Your task to perform on an android device: Open Maps and search for coffee Image 0: 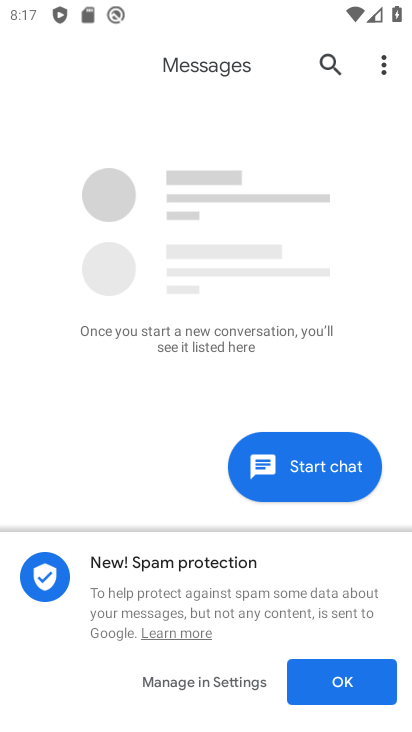
Step 0: press home button
Your task to perform on an android device: Open Maps and search for coffee Image 1: 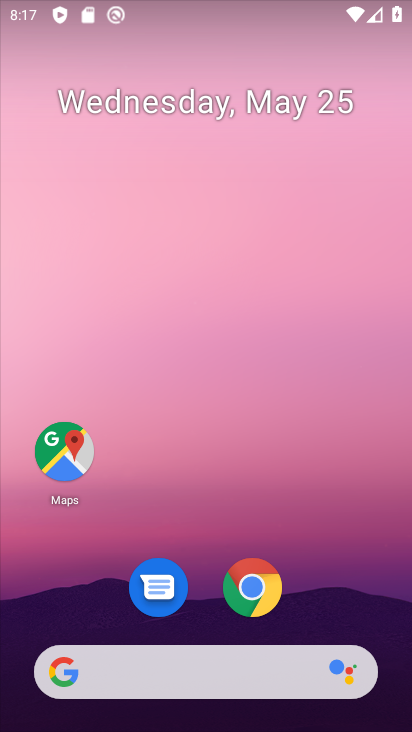
Step 1: click (47, 454)
Your task to perform on an android device: Open Maps and search for coffee Image 2: 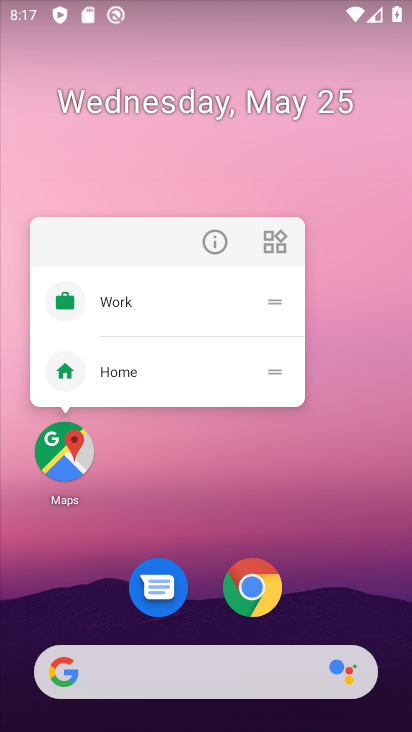
Step 2: click (334, 532)
Your task to perform on an android device: Open Maps and search for coffee Image 3: 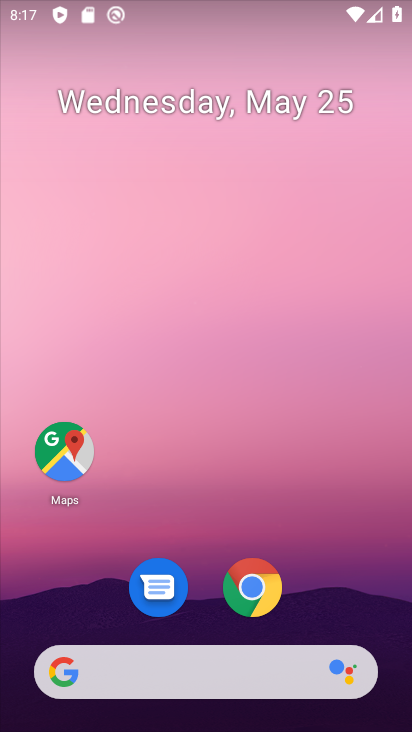
Step 3: drag from (330, 586) to (359, 91)
Your task to perform on an android device: Open Maps and search for coffee Image 4: 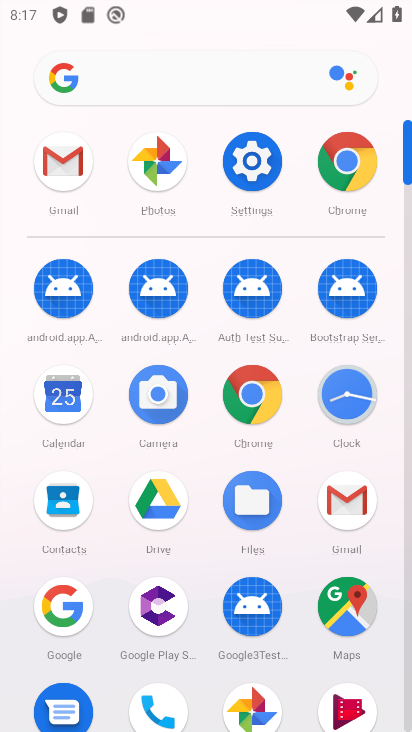
Step 4: click (334, 617)
Your task to perform on an android device: Open Maps and search for coffee Image 5: 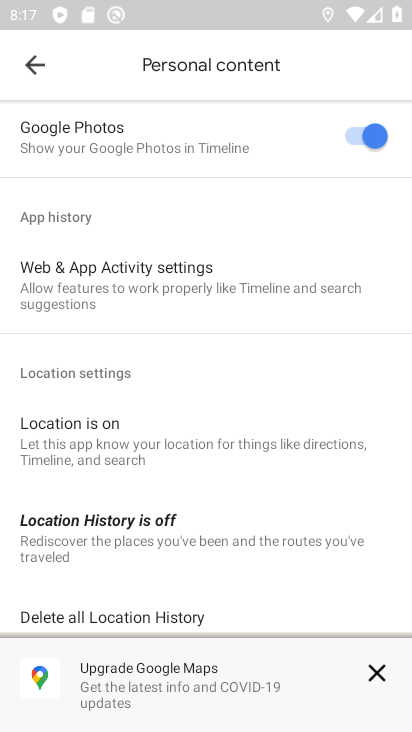
Step 5: click (32, 67)
Your task to perform on an android device: Open Maps and search for coffee Image 6: 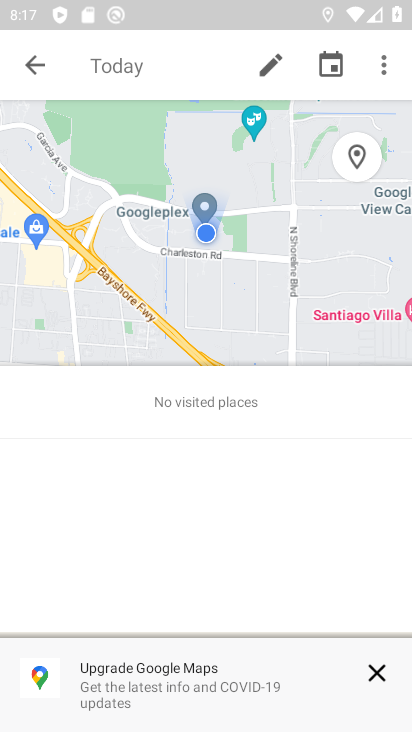
Step 6: click (37, 54)
Your task to perform on an android device: Open Maps and search for coffee Image 7: 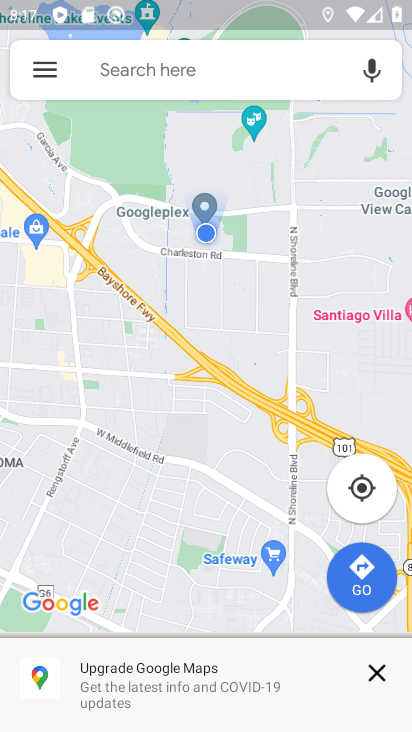
Step 7: click (86, 62)
Your task to perform on an android device: Open Maps and search for coffee Image 8: 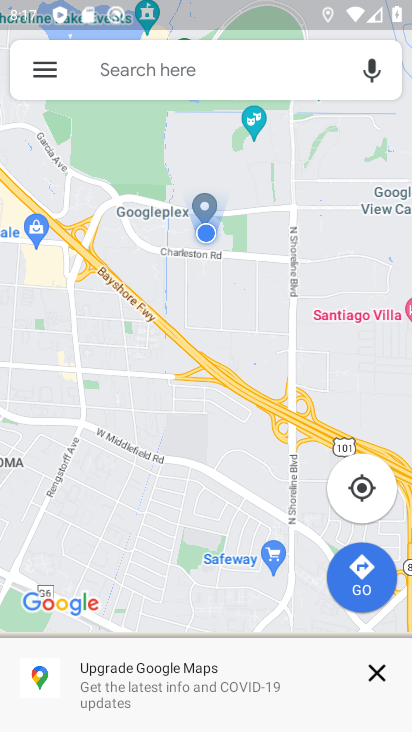
Step 8: click (125, 71)
Your task to perform on an android device: Open Maps and search for coffee Image 9: 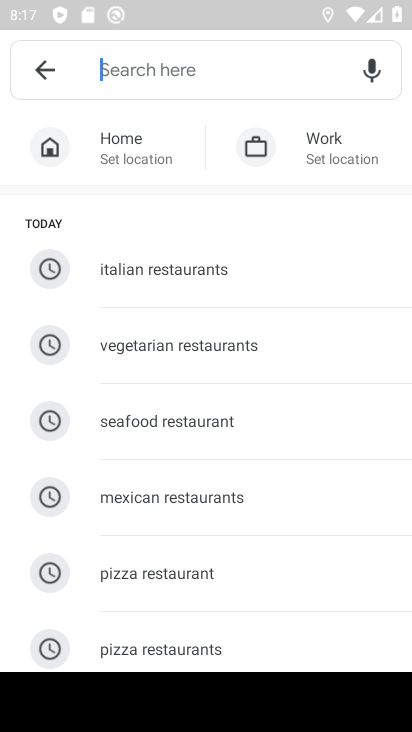
Step 9: type "coffee"
Your task to perform on an android device: Open Maps and search for coffee Image 10: 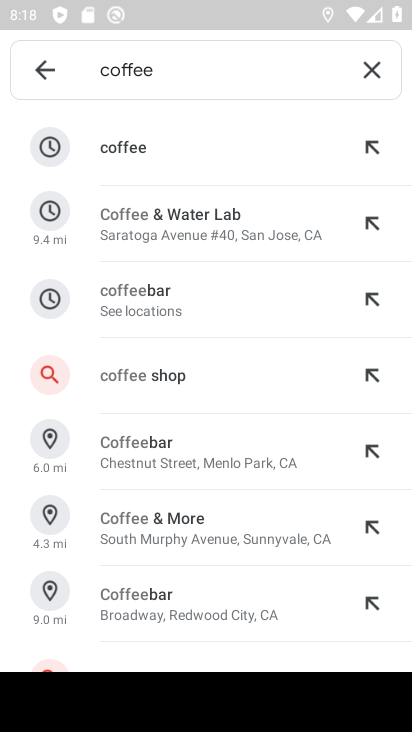
Step 10: click (134, 149)
Your task to perform on an android device: Open Maps and search for coffee Image 11: 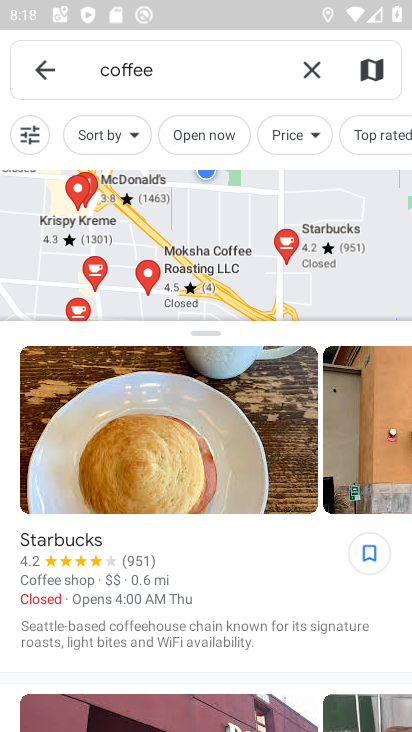
Step 11: task complete